Your task to perform on an android device: turn off sleep mode Image 0: 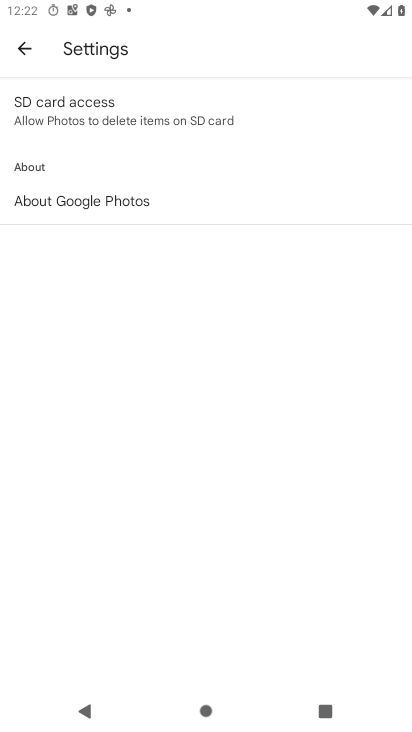
Step 0: press home button
Your task to perform on an android device: turn off sleep mode Image 1: 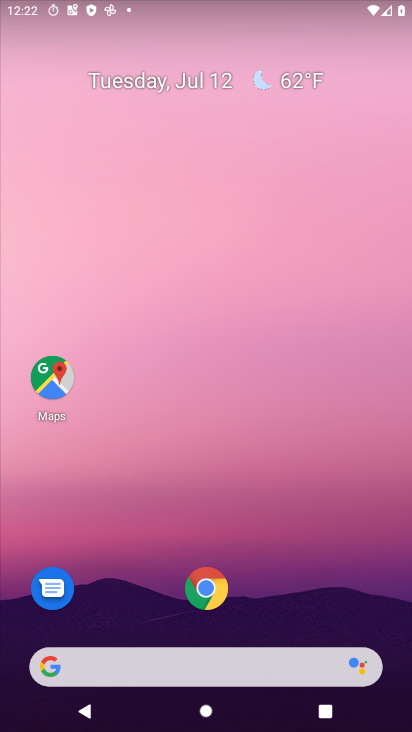
Step 1: drag from (198, 593) to (194, 32)
Your task to perform on an android device: turn off sleep mode Image 2: 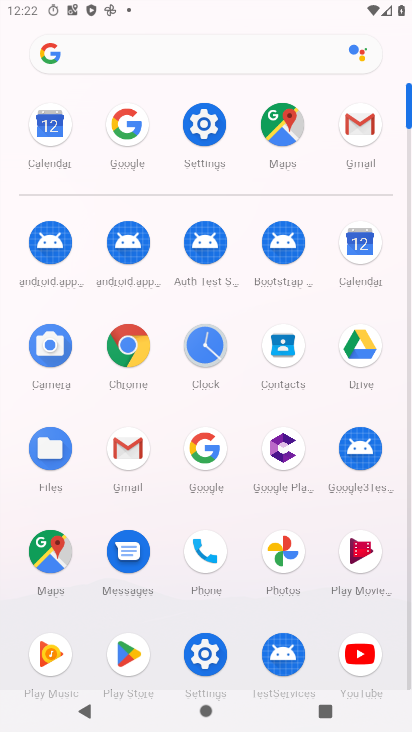
Step 2: click (194, 32)
Your task to perform on an android device: turn off sleep mode Image 3: 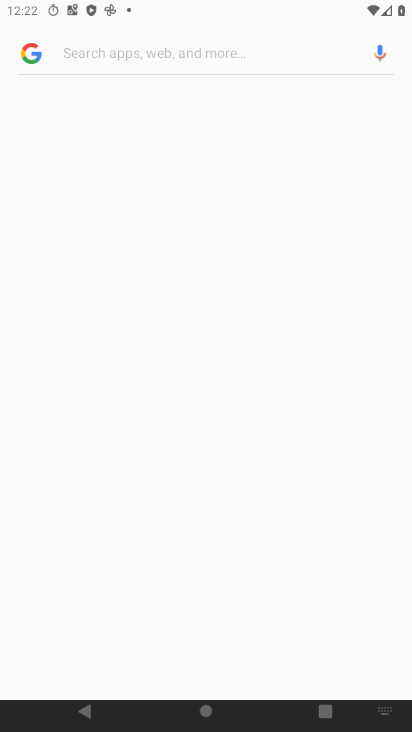
Step 3: click (196, 134)
Your task to perform on an android device: turn off sleep mode Image 4: 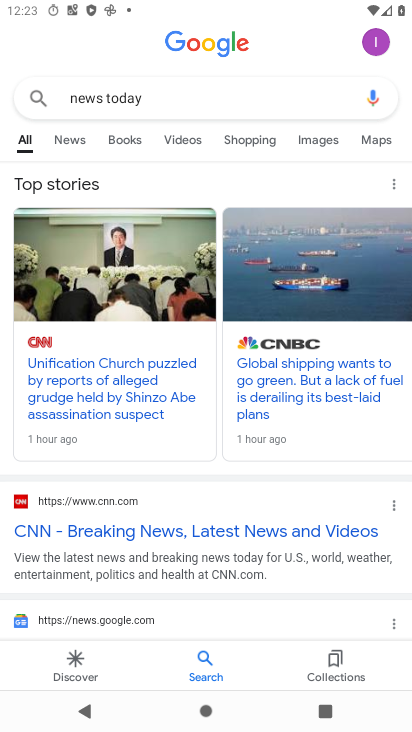
Step 4: task complete